Your task to perform on an android device: find which apps use the phone's location Image 0: 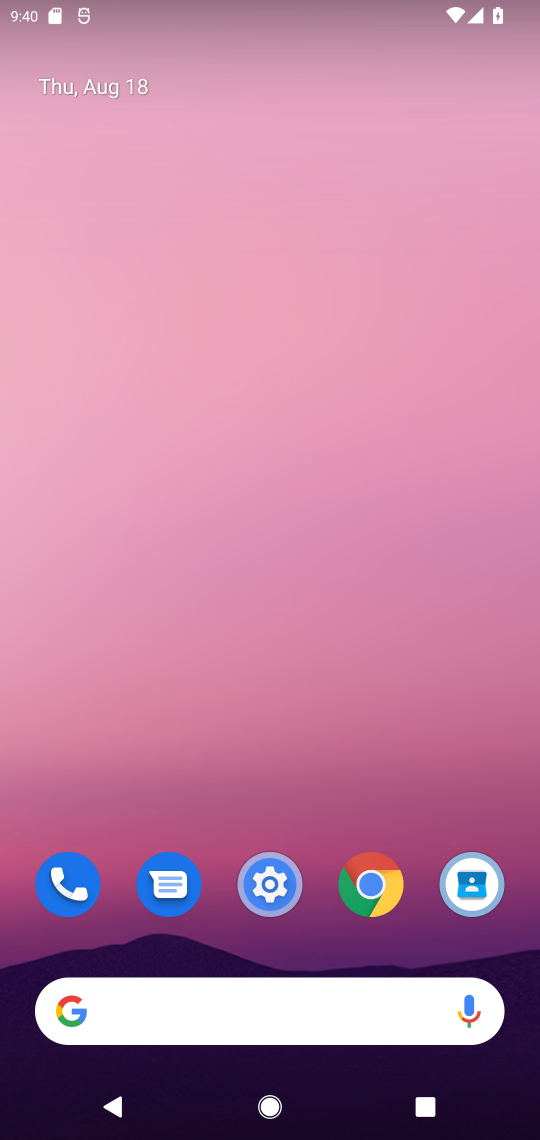
Step 0: click (273, 886)
Your task to perform on an android device: find which apps use the phone's location Image 1: 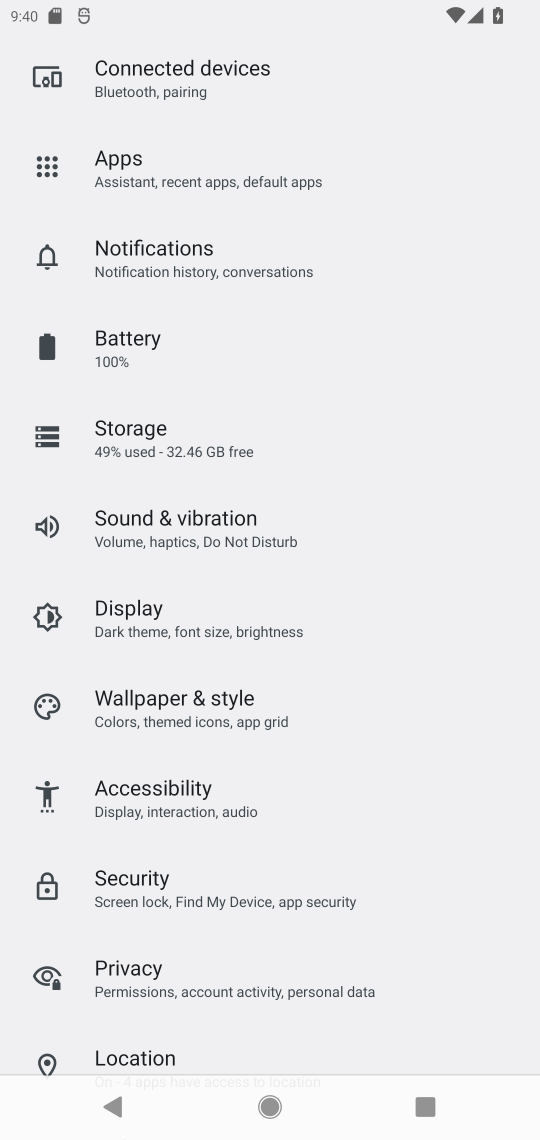
Step 1: click (153, 1042)
Your task to perform on an android device: find which apps use the phone's location Image 2: 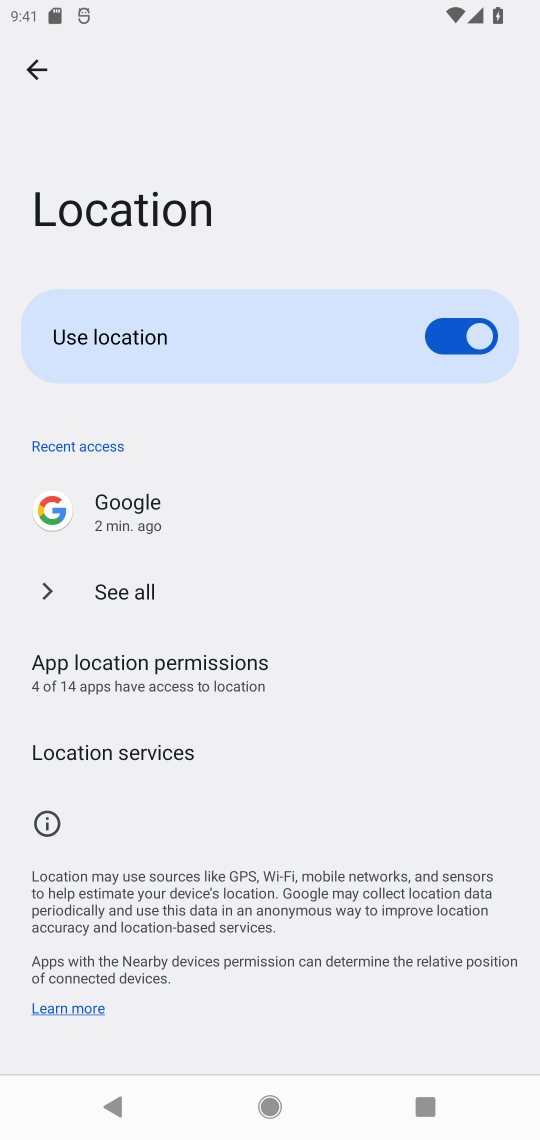
Step 2: click (150, 592)
Your task to perform on an android device: find which apps use the phone's location Image 3: 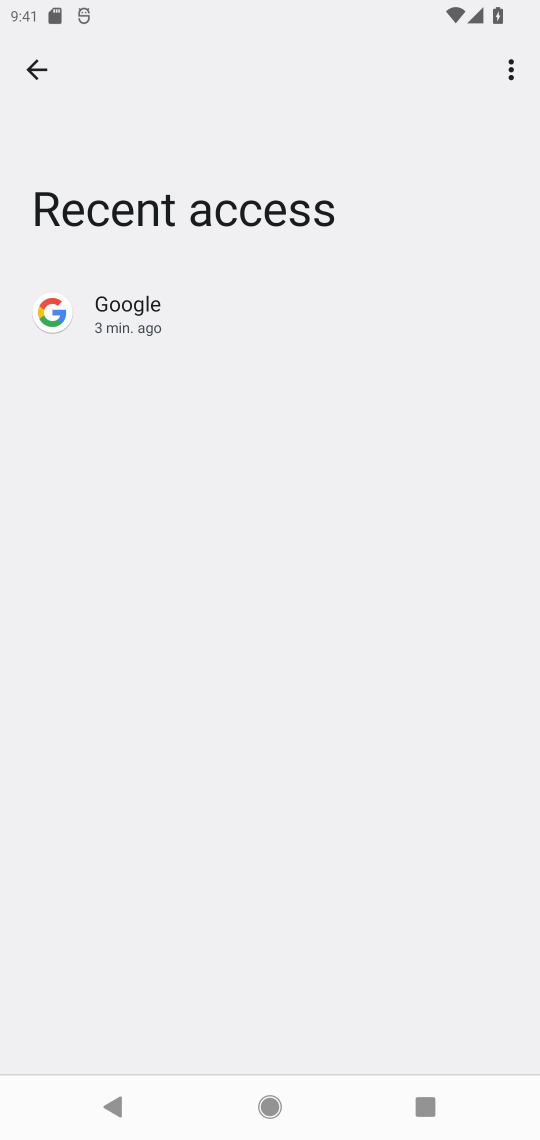
Step 3: task complete